Your task to perform on an android device: set the stopwatch Image 0: 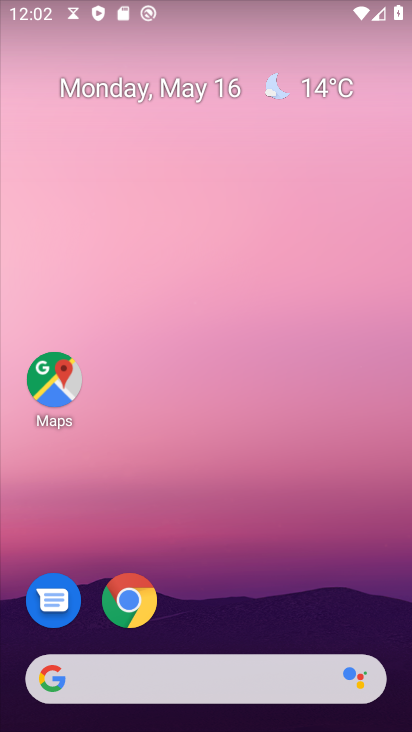
Step 0: drag from (242, 580) to (217, 79)
Your task to perform on an android device: set the stopwatch Image 1: 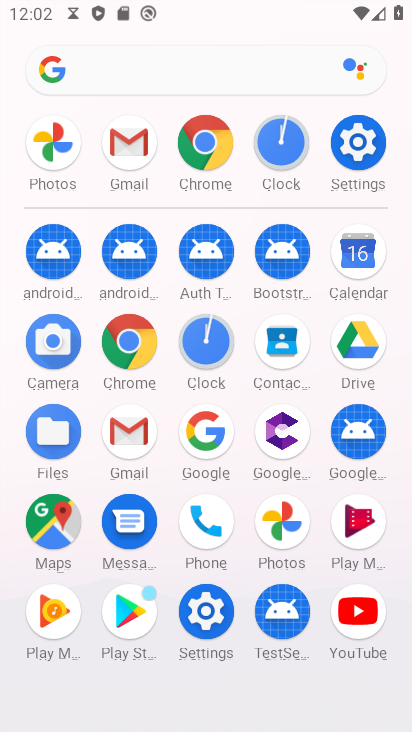
Step 1: drag from (20, 565) to (27, 275)
Your task to perform on an android device: set the stopwatch Image 2: 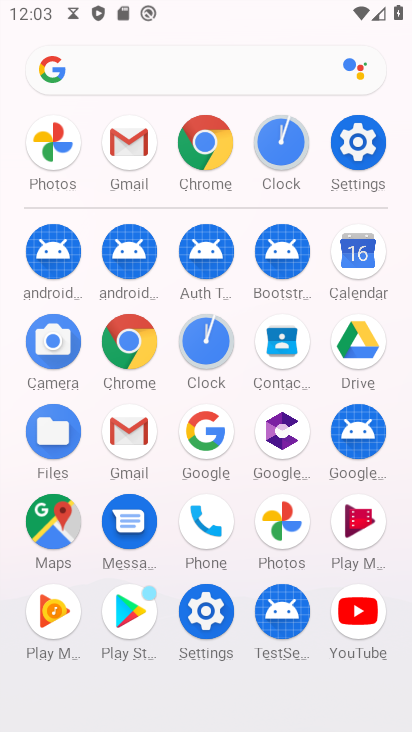
Step 2: click (204, 344)
Your task to perform on an android device: set the stopwatch Image 3: 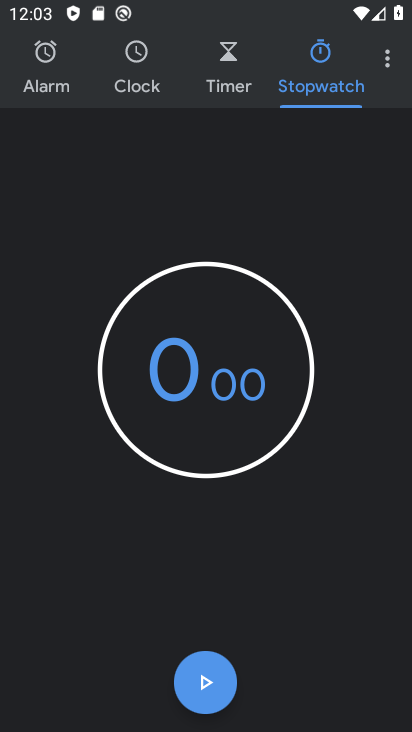
Step 3: task complete